Your task to perform on an android device: Go to Wikipedia Image 0: 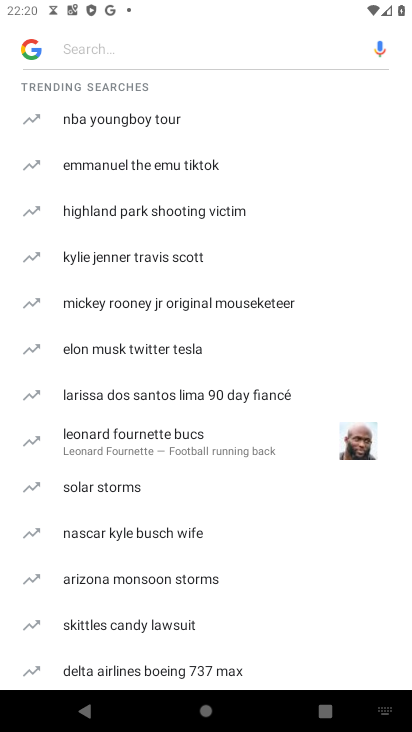
Step 0: press home button
Your task to perform on an android device: Go to Wikipedia Image 1: 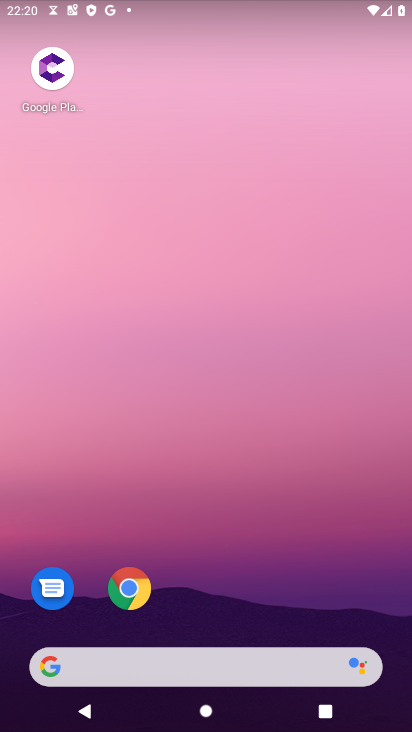
Step 1: click (128, 588)
Your task to perform on an android device: Go to Wikipedia Image 2: 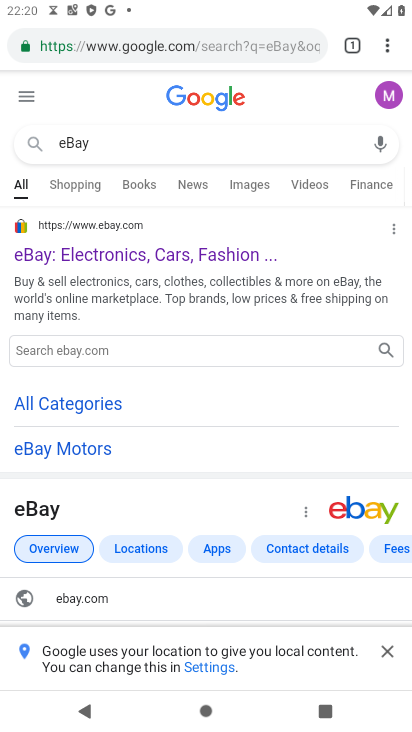
Step 2: click (285, 36)
Your task to perform on an android device: Go to Wikipedia Image 3: 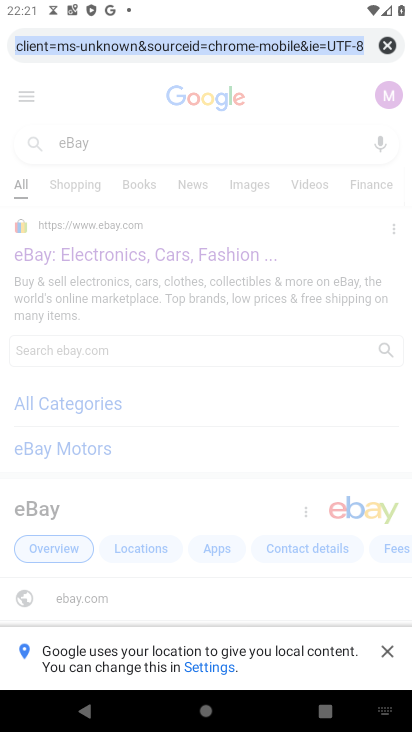
Step 3: type "Wikipedia"
Your task to perform on an android device: Go to Wikipedia Image 4: 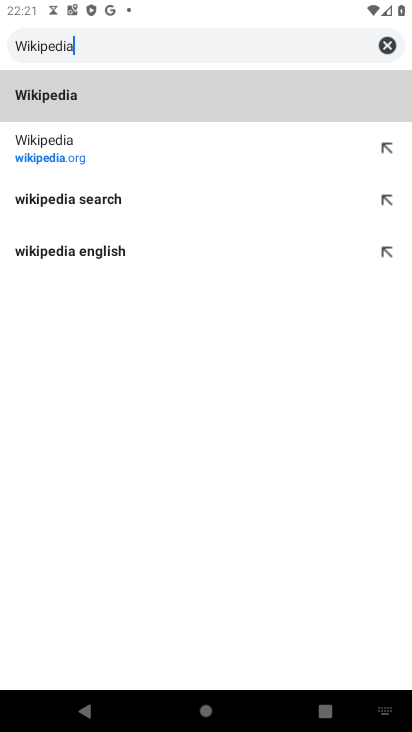
Step 4: click (64, 99)
Your task to perform on an android device: Go to Wikipedia Image 5: 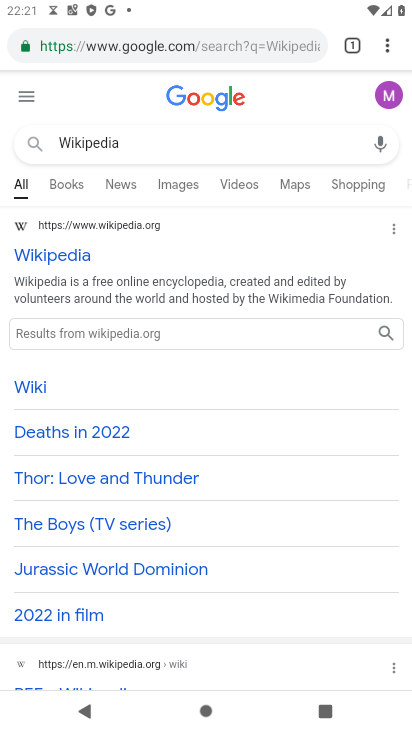
Step 5: click (69, 250)
Your task to perform on an android device: Go to Wikipedia Image 6: 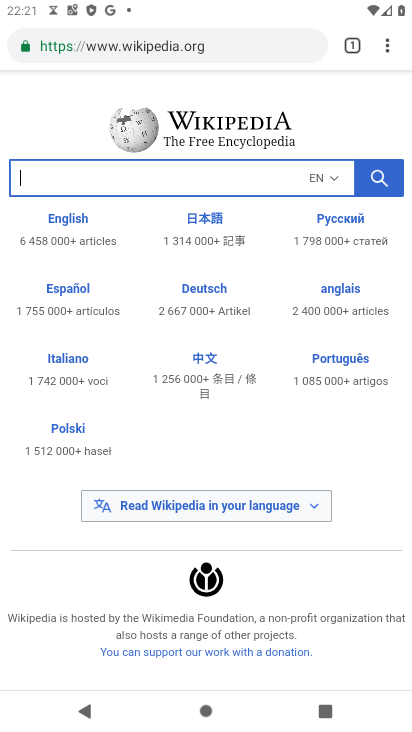
Step 6: task complete